Your task to perform on an android device: Open accessibility settings Image 0: 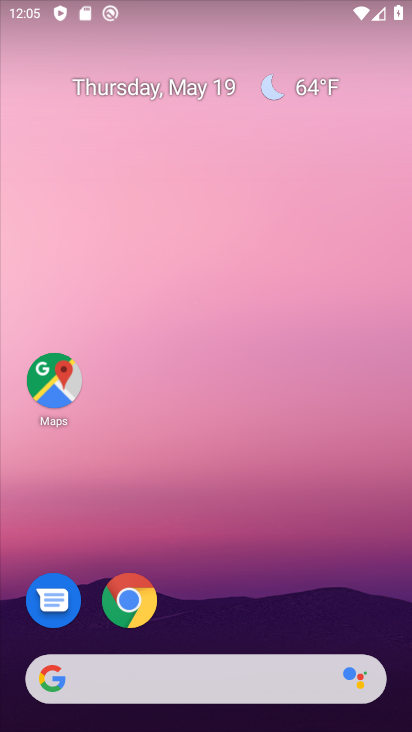
Step 0: drag from (209, 642) to (286, 59)
Your task to perform on an android device: Open accessibility settings Image 1: 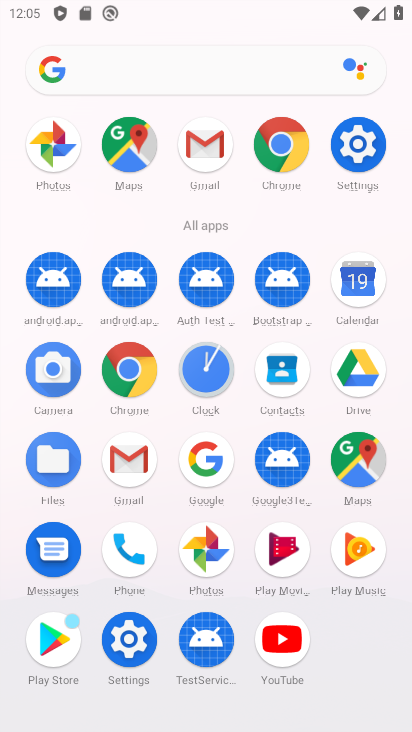
Step 1: click (364, 155)
Your task to perform on an android device: Open accessibility settings Image 2: 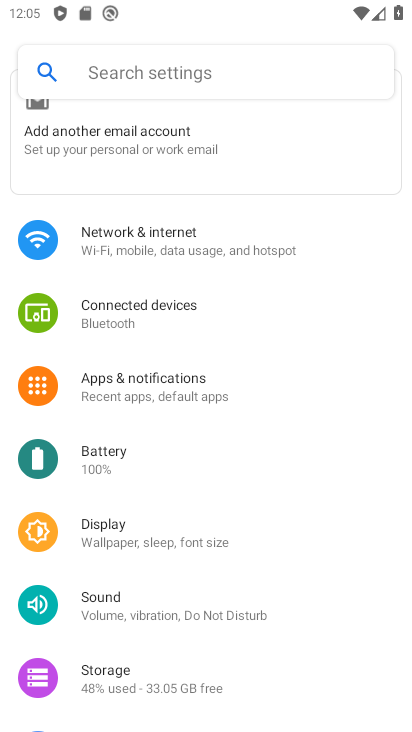
Step 2: drag from (272, 459) to (211, 90)
Your task to perform on an android device: Open accessibility settings Image 3: 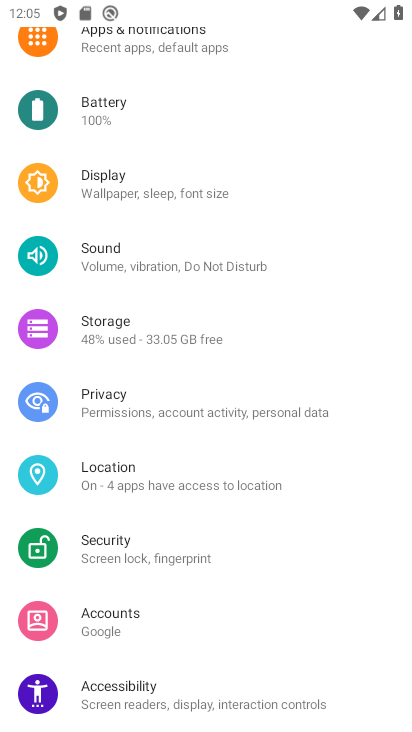
Step 3: click (139, 685)
Your task to perform on an android device: Open accessibility settings Image 4: 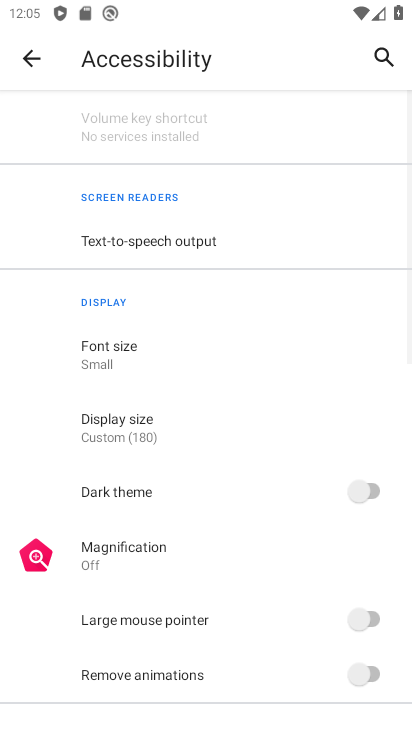
Step 4: task complete